Your task to perform on an android device: turn on location history Image 0: 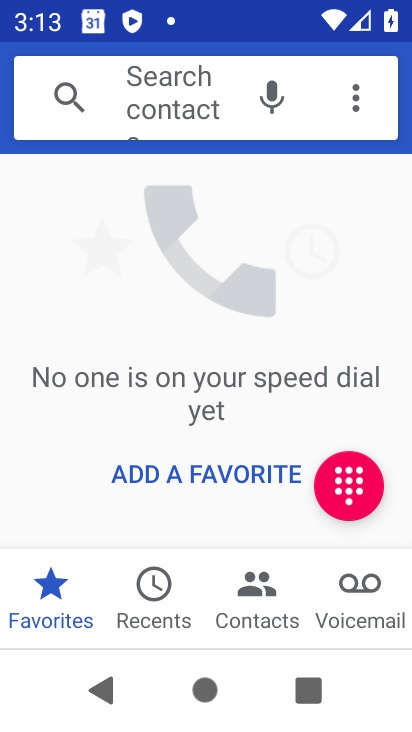
Step 0: press home button
Your task to perform on an android device: turn on location history Image 1: 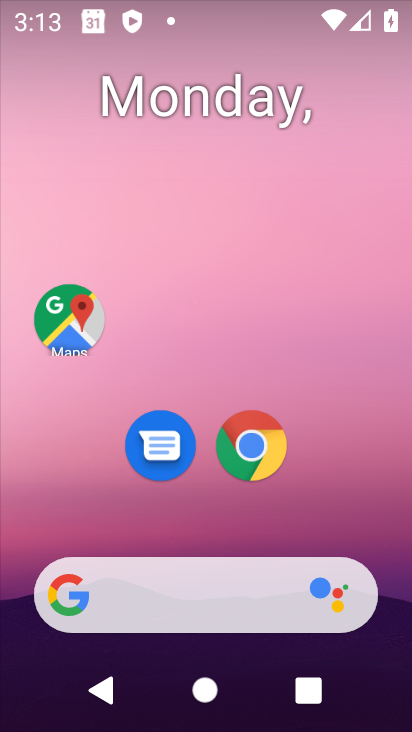
Step 1: click (58, 298)
Your task to perform on an android device: turn on location history Image 2: 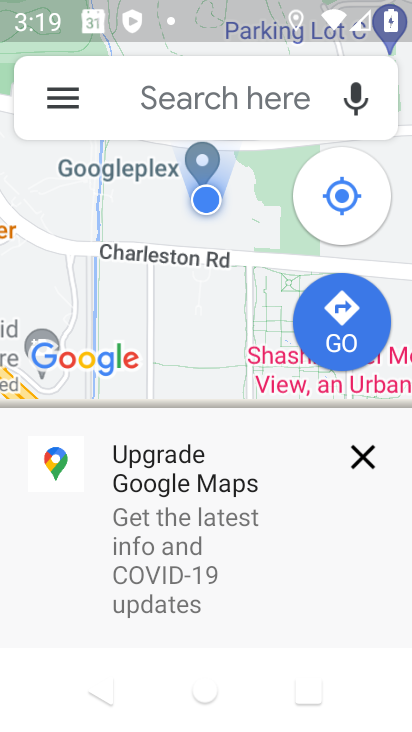
Step 2: click (59, 88)
Your task to perform on an android device: turn on location history Image 3: 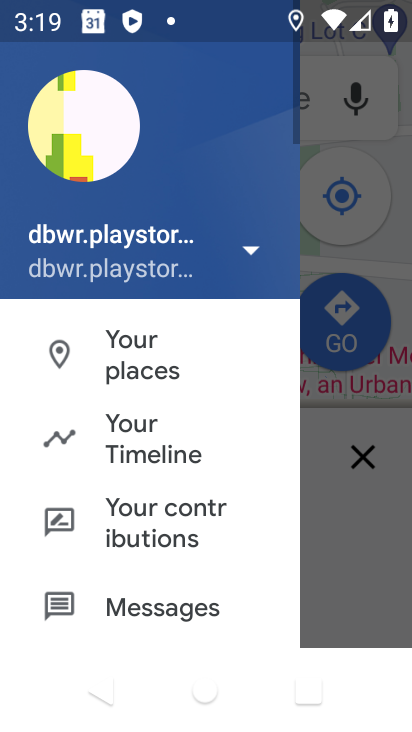
Step 3: click (145, 439)
Your task to perform on an android device: turn on location history Image 4: 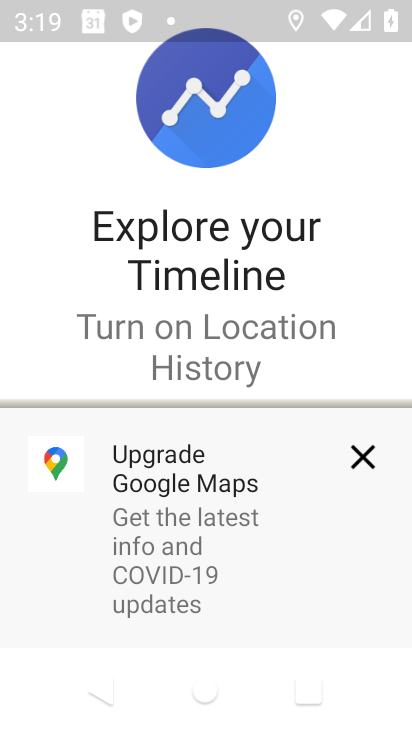
Step 4: click (353, 457)
Your task to perform on an android device: turn on location history Image 5: 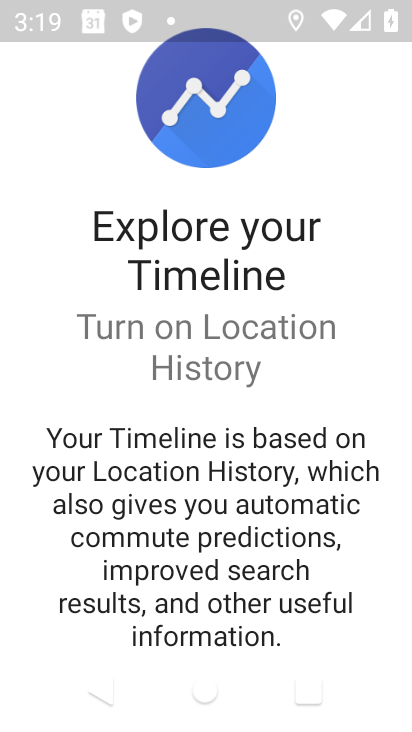
Step 5: drag from (266, 557) to (294, 203)
Your task to perform on an android device: turn on location history Image 6: 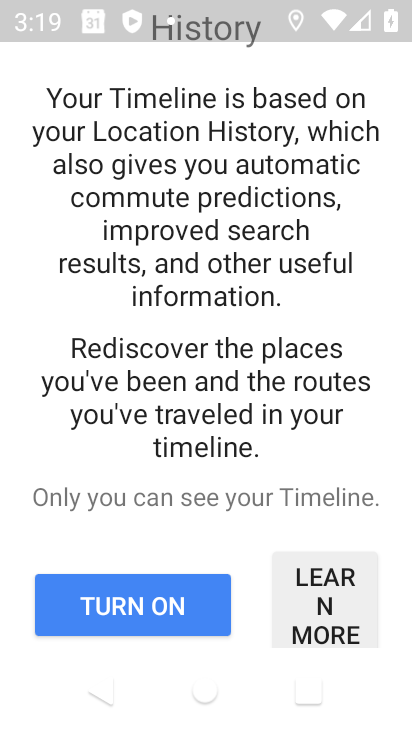
Step 6: drag from (178, 596) to (238, 318)
Your task to perform on an android device: turn on location history Image 7: 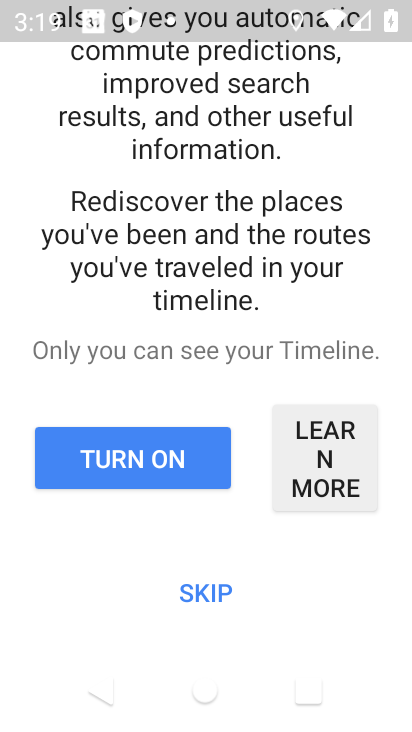
Step 7: click (174, 466)
Your task to perform on an android device: turn on location history Image 8: 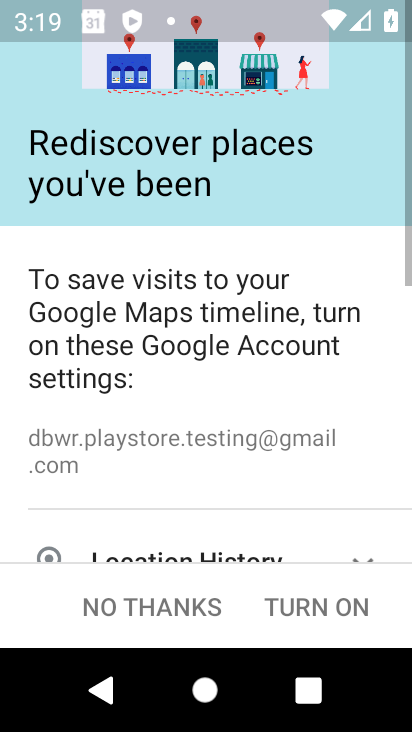
Step 8: drag from (247, 539) to (294, 239)
Your task to perform on an android device: turn on location history Image 9: 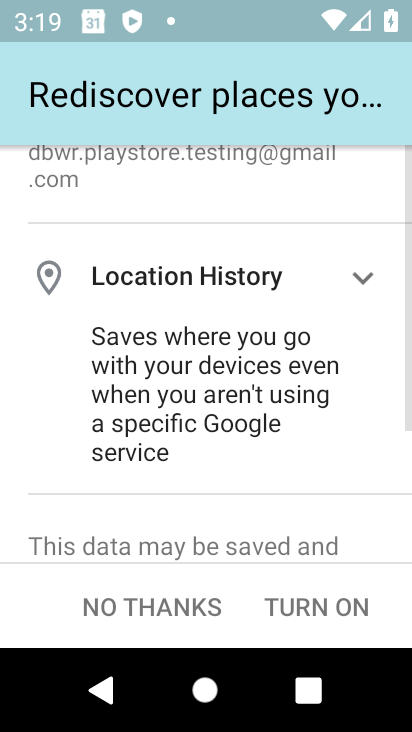
Step 9: drag from (250, 520) to (286, 252)
Your task to perform on an android device: turn on location history Image 10: 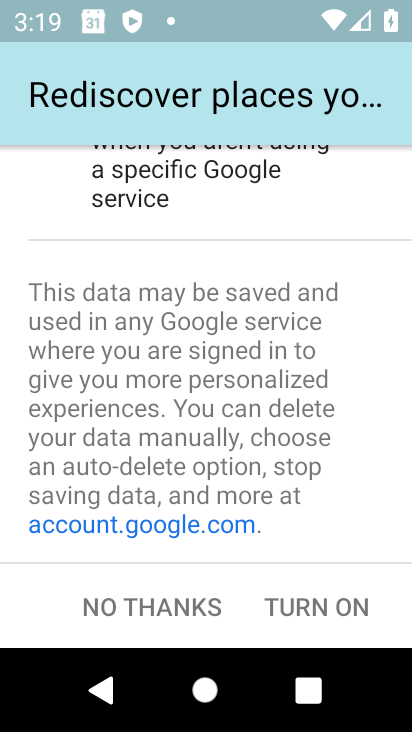
Step 10: drag from (273, 550) to (306, 253)
Your task to perform on an android device: turn on location history Image 11: 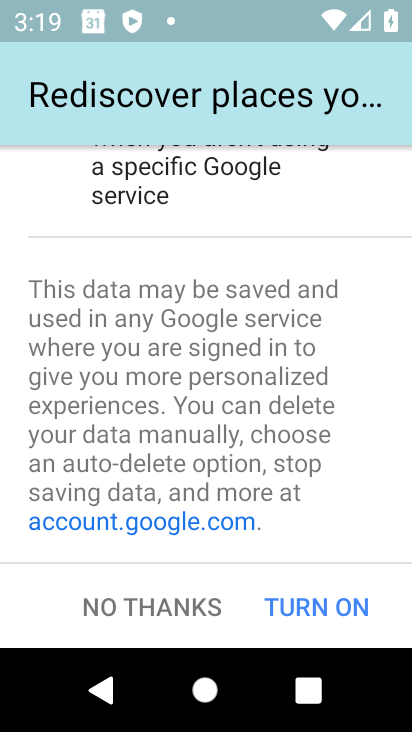
Step 11: click (340, 611)
Your task to perform on an android device: turn on location history Image 12: 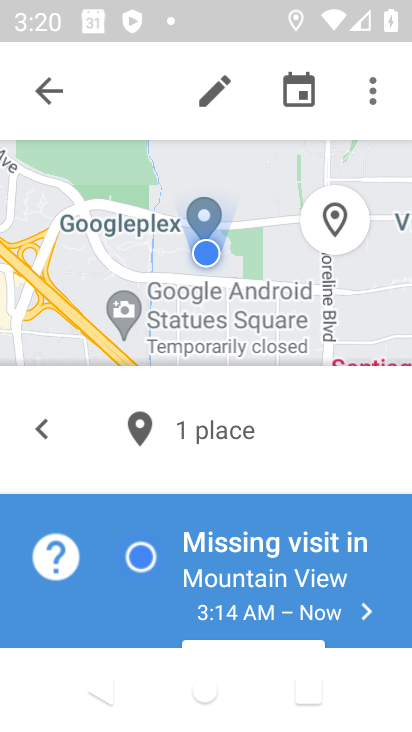
Step 12: task complete